Your task to perform on an android device: find snoozed emails in the gmail app Image 0: 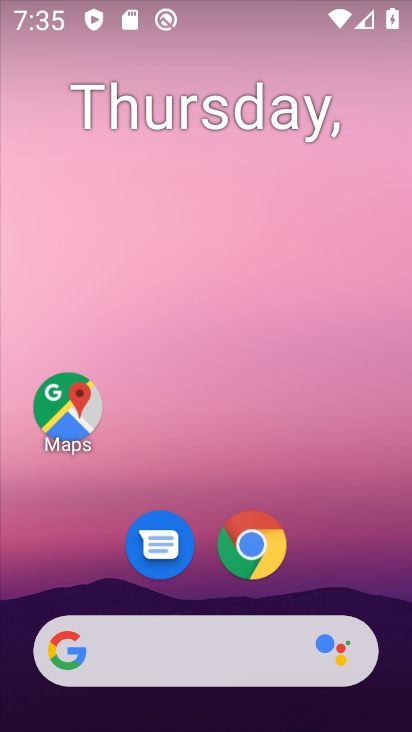
Step 0: drag from (348, 383) to (402, 20)
Your task to perform on an android device: find snoozed emails in the gmail app Image 1: 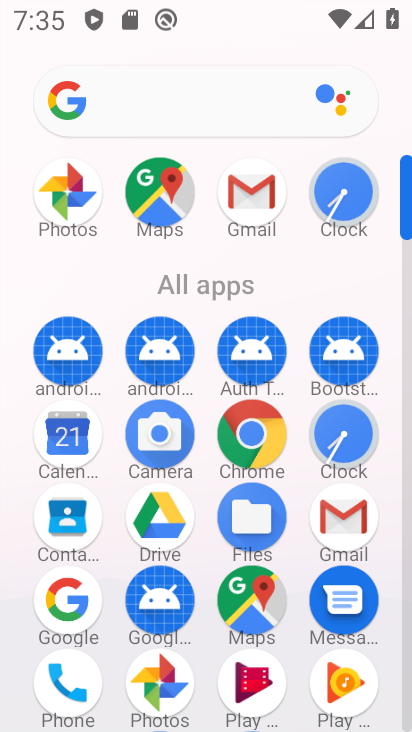
Step 1: click (247, 181)
Your task to perform on an android device: find snoozed emails in the gmail app Image 2: 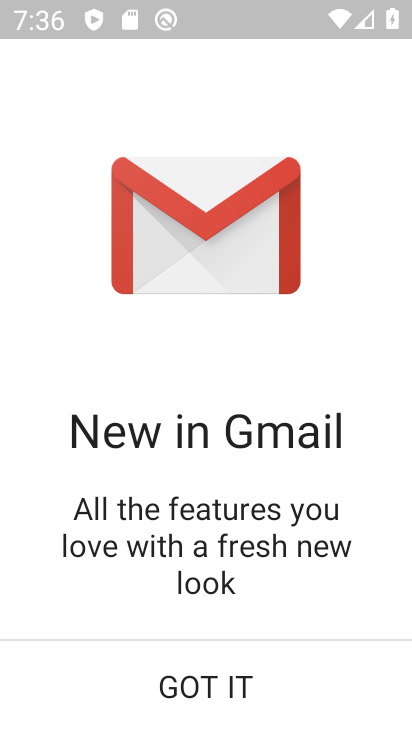
Step 2: click (232, 682)
Your task to perform on an android device: find snoozed emails in the gmail app Image 3: 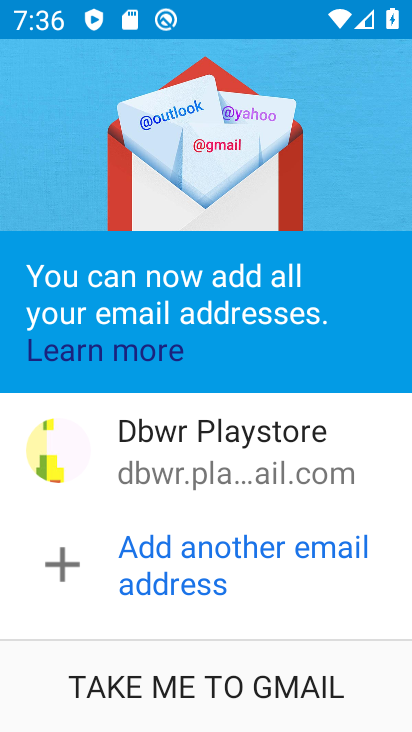
Step 3: click (202, 691)
Your task to perform on an android device: find snoozed emails in the gmail app Image 4: 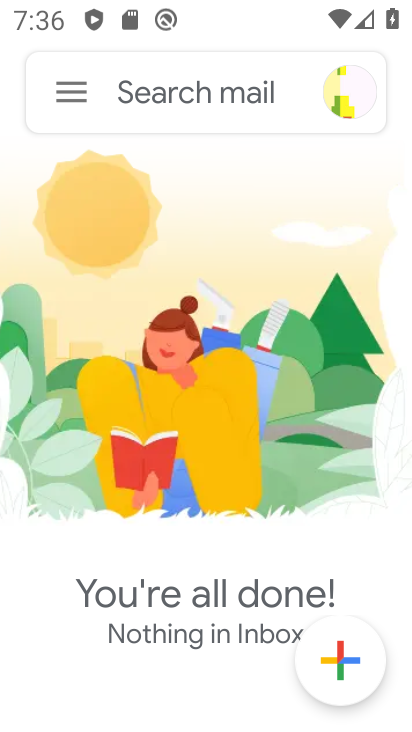
Step 4: click (59, 85)
Your task to perform on an android device: find snoozed emails in the gmail app Image 5: 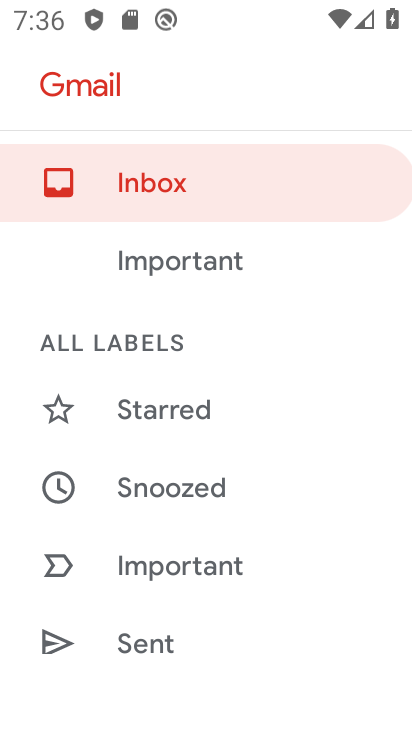
Step 5: click (178, 485)
Your task to perform on an android device: find snoozed emails in the gmail app Image 6: 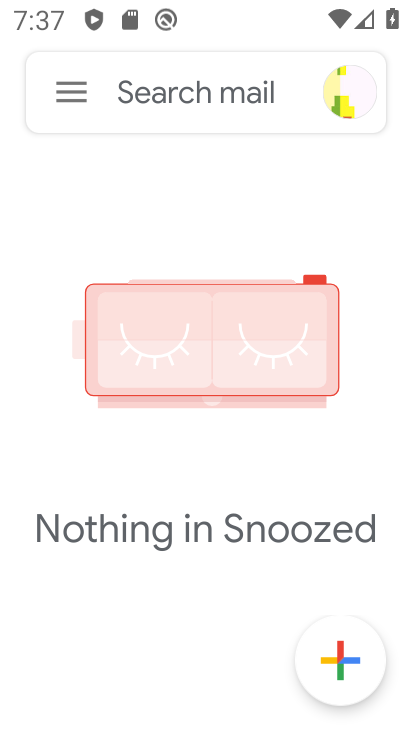
Step 6: task complete